Your task to perform on an android device: open app "ColorNote Notepad Notes" Image 0: 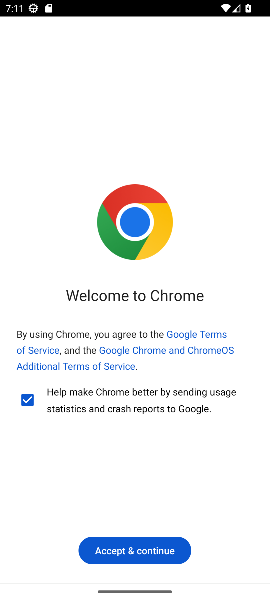
Step 0: press home button
Your task to perform on an android device: open app "ColorNote Notepad Notes" Image 1: 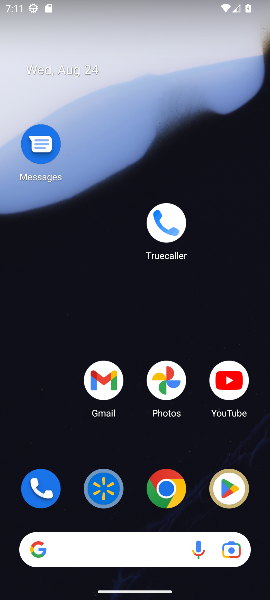
Step 1: drag from (148, 521) to (124, 34)
Your task to perform on an android device: open app "ColorNote Notepad Notes" Image 2: 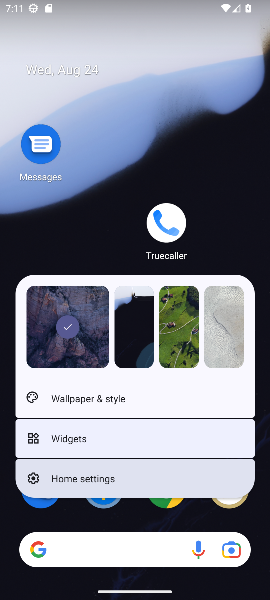
Step 2: click (123, 176)
Your task to perform on an android device: open app "ColorNote Notepad Notes" Image 3: 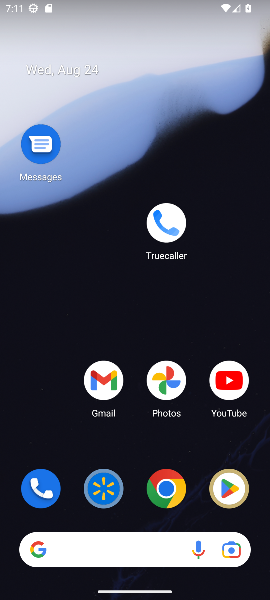
Step 3: drag from (134, 519) to (123, 93)
Your task to perform on an android device: open app "ColorNote Notepad Notes" Image 4: 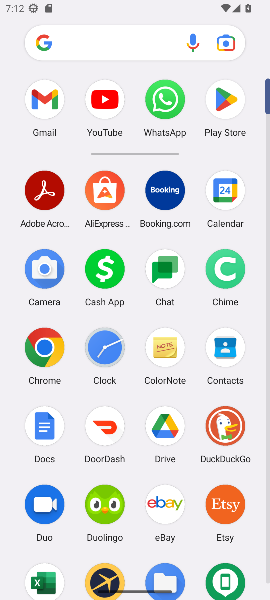
Step 4: click (204, 104)
Your task to perform on an android device: open app "ColorNote Notepad Notes" Image 5: 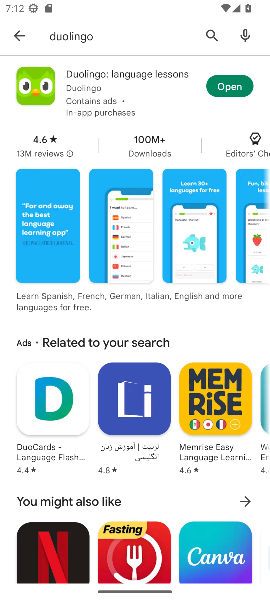
Step 5: click (204, 31)
Your task to perform on an android device: open app "ColorNote Notepad Notes" Image 6: 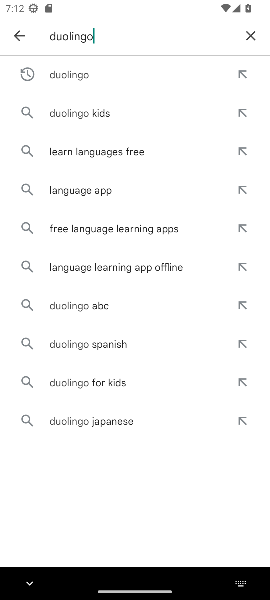
Step 6: click (255, 38)
Your task to perform on an android device: open app "ColorNote Notepad Notes" Image 7: 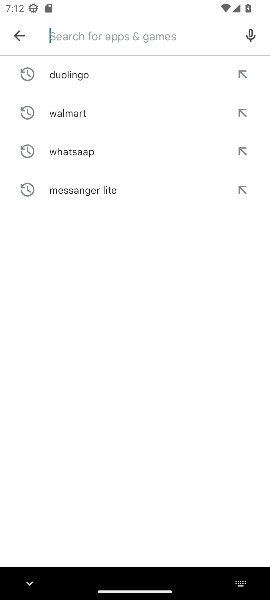
Step 7: type "colornote"
Your task to perform on an android device: open app "ColorNote Notepad Notes" Image 8: 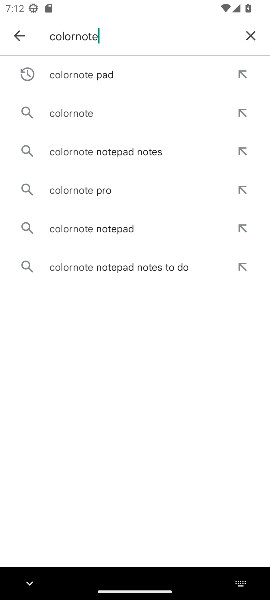
Step 8: click (76, 88)
Your task to perform on an android device: open app "ColorNote Notepad Notes" Image 9: 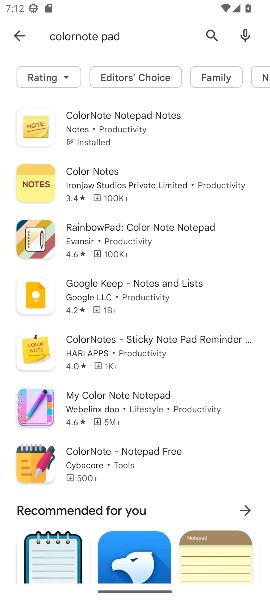
Step 9: click (177, 106)
Your task to perform on an android device: open app "ColorNote Notepad Notes" Image 10: 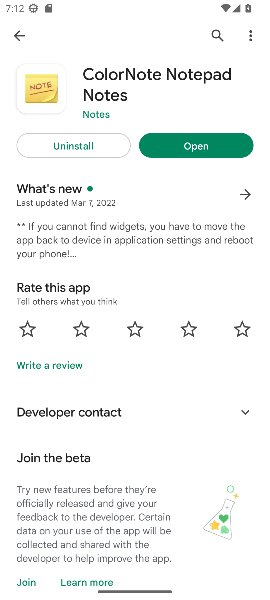
Step 10: click (194, 137)
Your task to perform on an android device: open app "ColorNote Notepad Notes" Image 11: 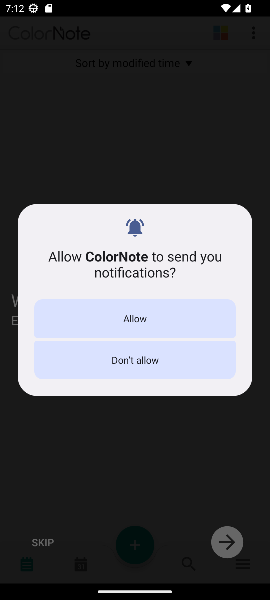
Step 11: click (151, 334)
Your task to perform on an android device: open app "ColorNote Notepad Notes" Image 12: 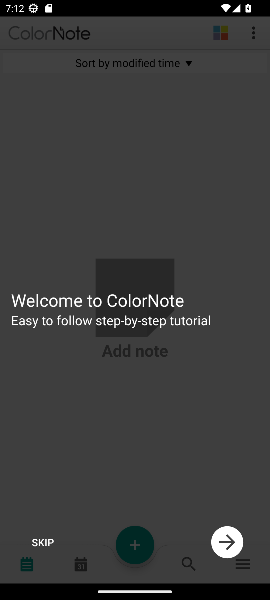
Step 12: task complete